Your task to perform on an android device: Open calendar and show me the fourth week of next month Image 0: 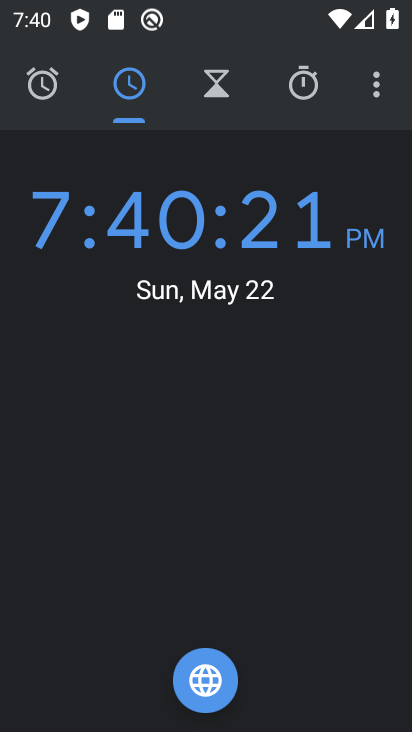
Step 0: press home button
Your task to perform on an android device: Open calendar and show me the fourth week of next month Image 1: 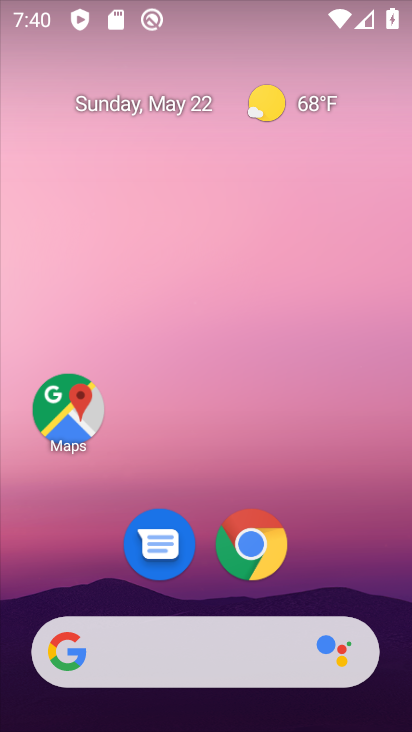
Step 1: drag from (399, 634) to (407, 233)
Your task to perform on an android device: Open calendar and show me the fourth week of next month Image 2: 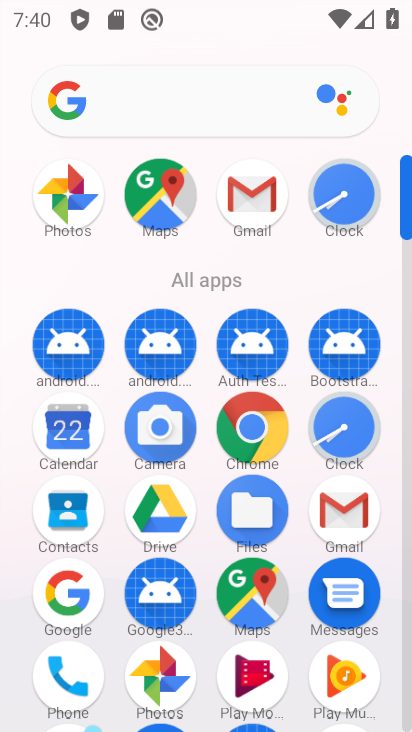
Step 2: click (50, 427)
Your task to perform on an android device: Open calendar and show me the fourth week of next month Image 3: 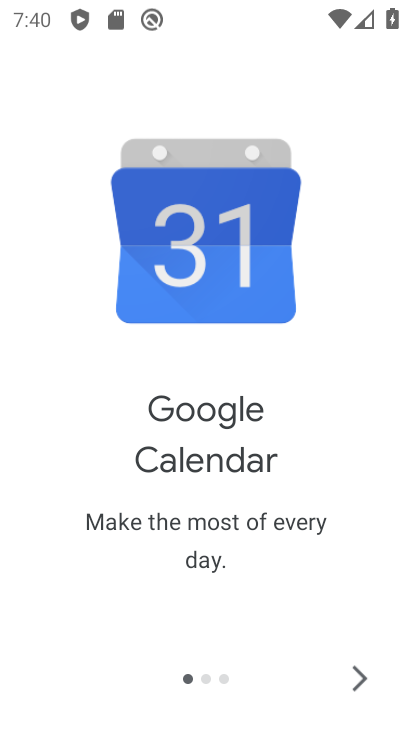
Step 3: click (357, 677)
Your task to perform on an android device: Open calendar and show me the fourth week of next month Image 4: 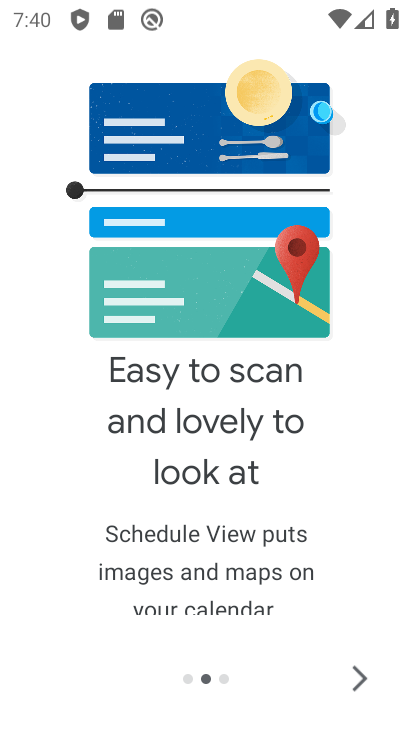
Step 4: click (357, 677)
Your task to perform on an android device: Open calendar and show me the fourth week of next month Image 5: 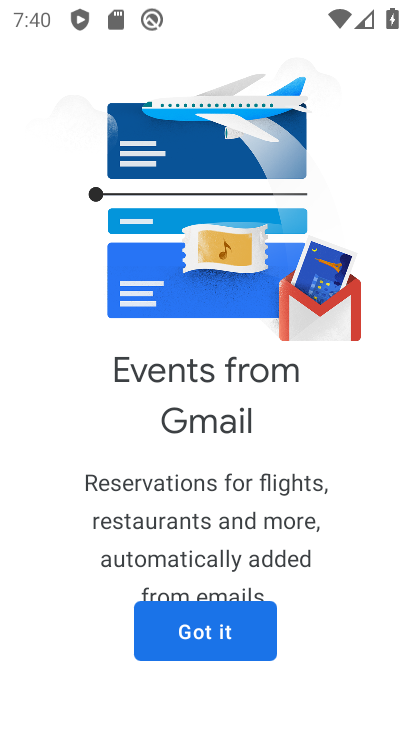
Step 5: click (232, 626)
Your task to perform on an android device: Open calendar and show me the fourth week of next month Image 6: 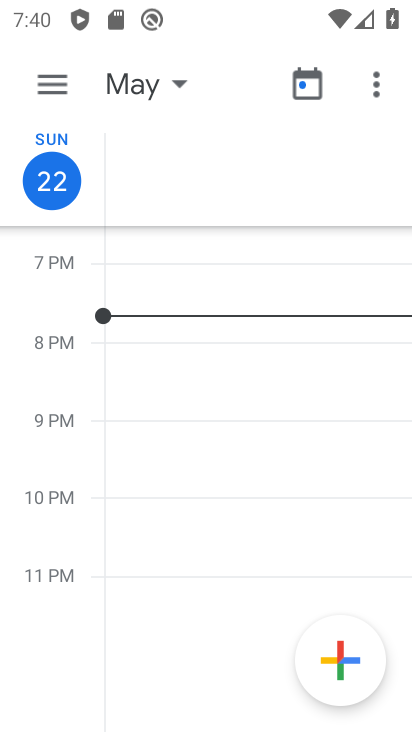
Step 6: click (188, 73)
Your task to perform on an android device: Open calendar and show me the fourth week of next month Image 7: 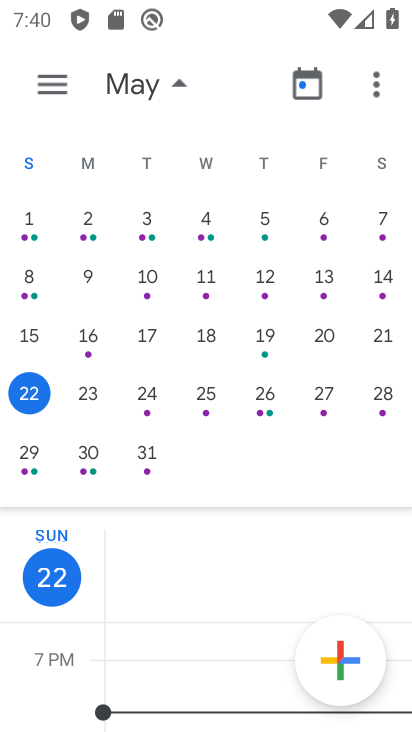
Step 7: drag from (396, 315) to (11, 299)
Your task to perform on an android device: Open calendar and show me the fourth week of next month Image 8: 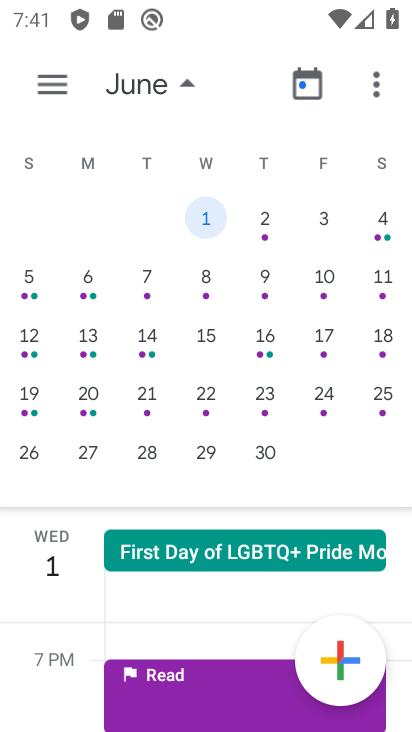
Step 8: click (260, 400)
Your task to perform on an android device: Open calendar and show me the fourth week of next month Image 9: 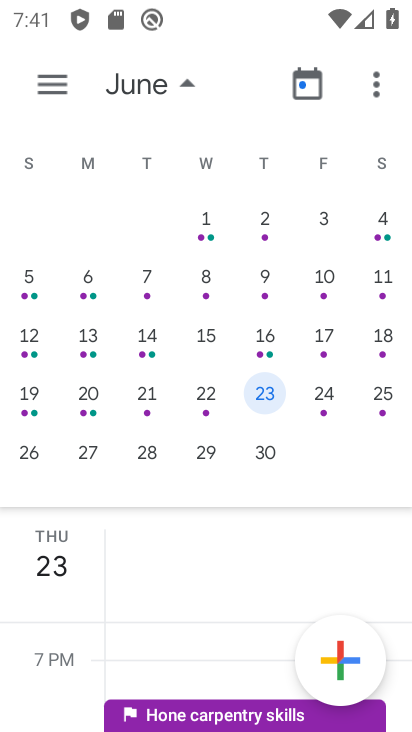
Step 9: task complete